Your task to perform on an android device: install app "Indeed Job Search" Image 0: 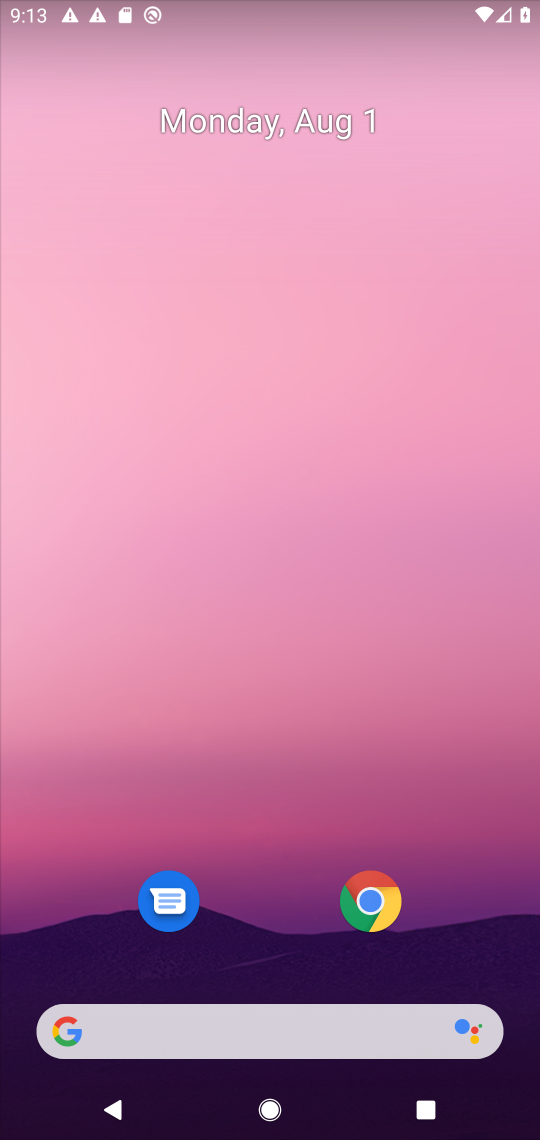
Step 0: drag from (258, 929) to (338, 3)
Your task to perform on an android device: install app "Indeed Job Search" Image 1: 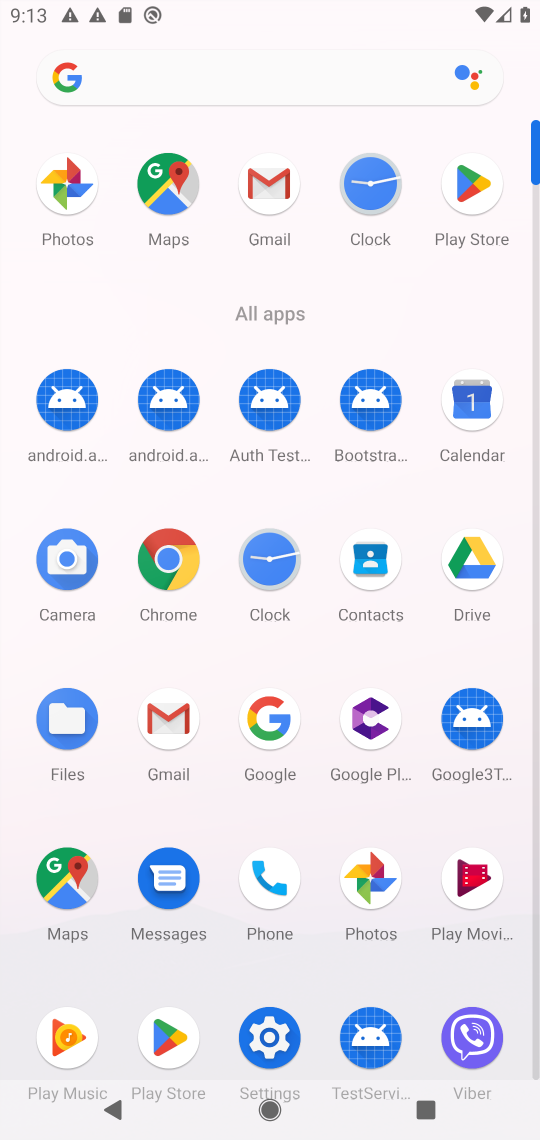
Step 1: click (467, 173)
Your task to perform on an android device: install app "Indeed Job Search" Image 2: 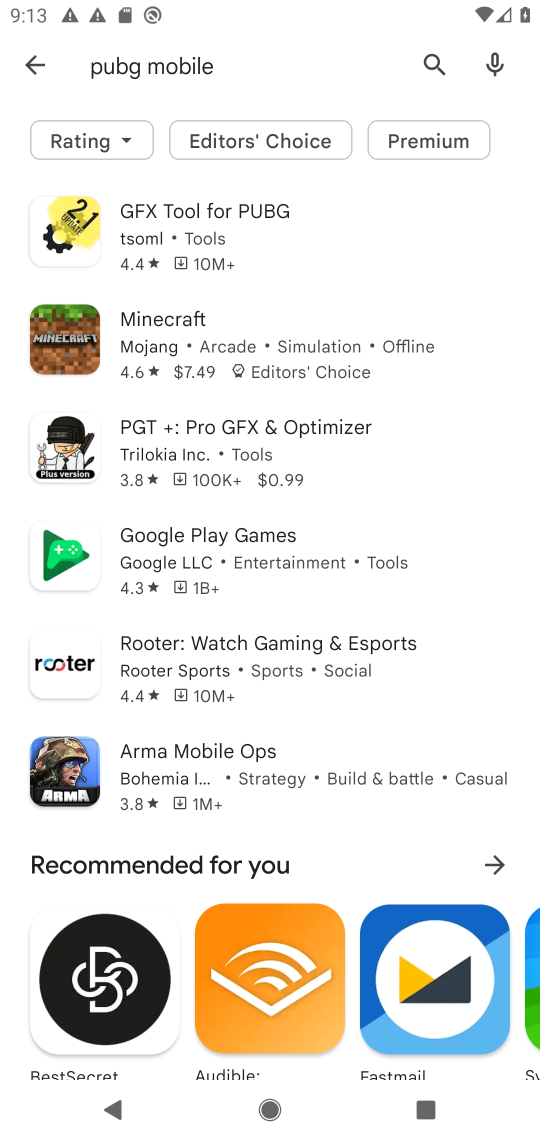
Step 2: click (433, 54)
Your task to perform on an android device: install app "Indeed Job Search" Image 3: 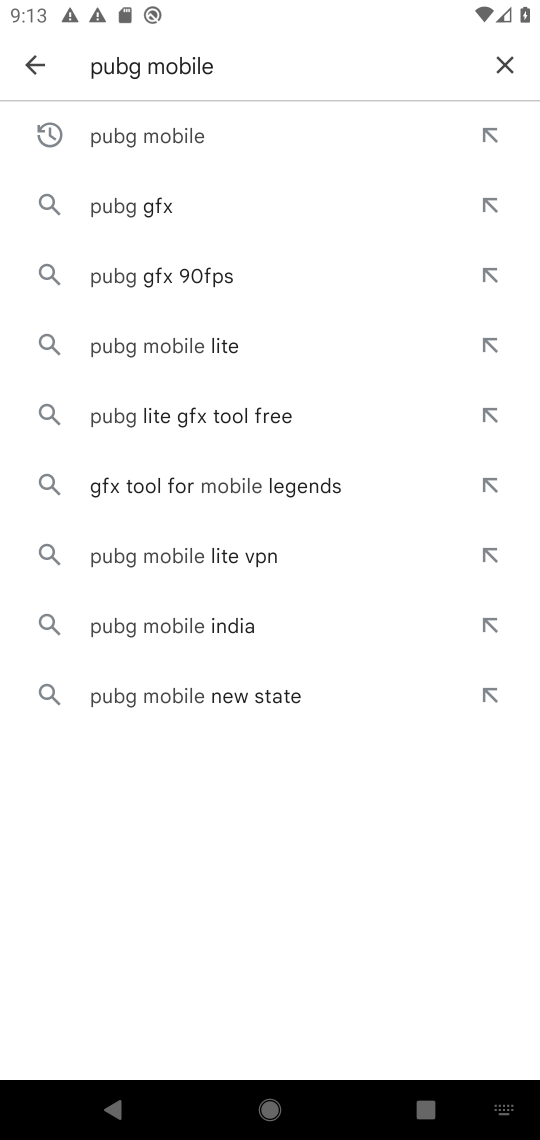
Step 3: click (500, 58)
Your task to perform on an android device: install app "Indeed Job Search" Image 4: 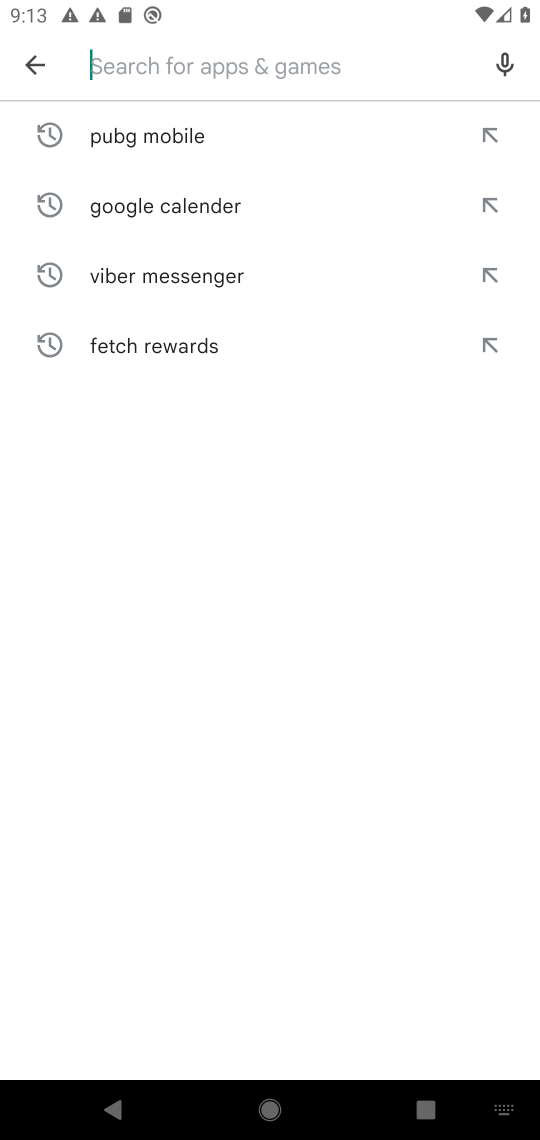
Step 4: type "indeed job search"
Your task to perform on an android device: install app "Indeed Job Search" Image 5: 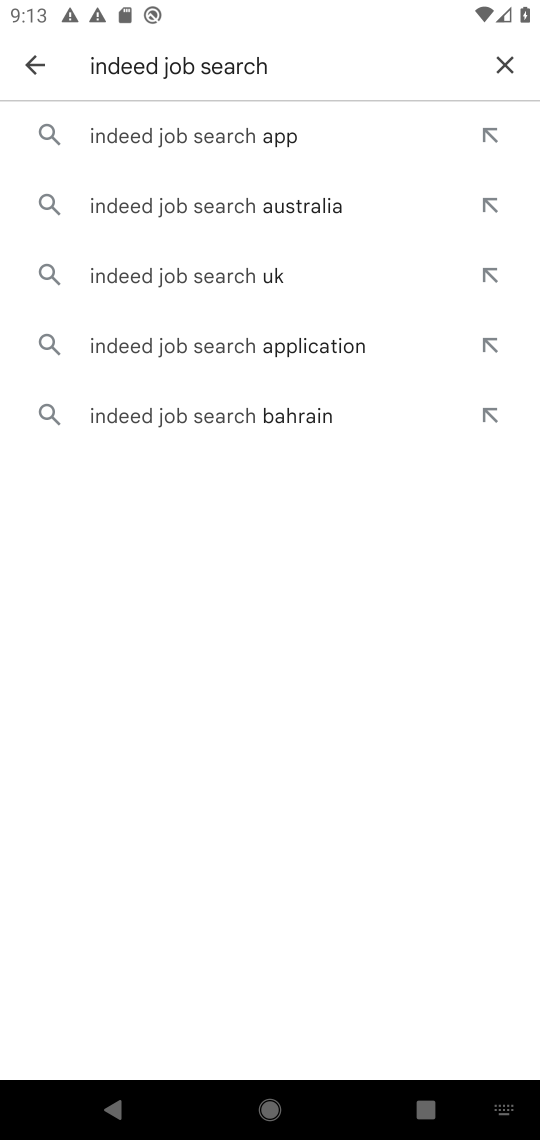
Step 5: click (174, 133)
Your task to perform on an android device: install app "Indeed Job Search" Image 6: 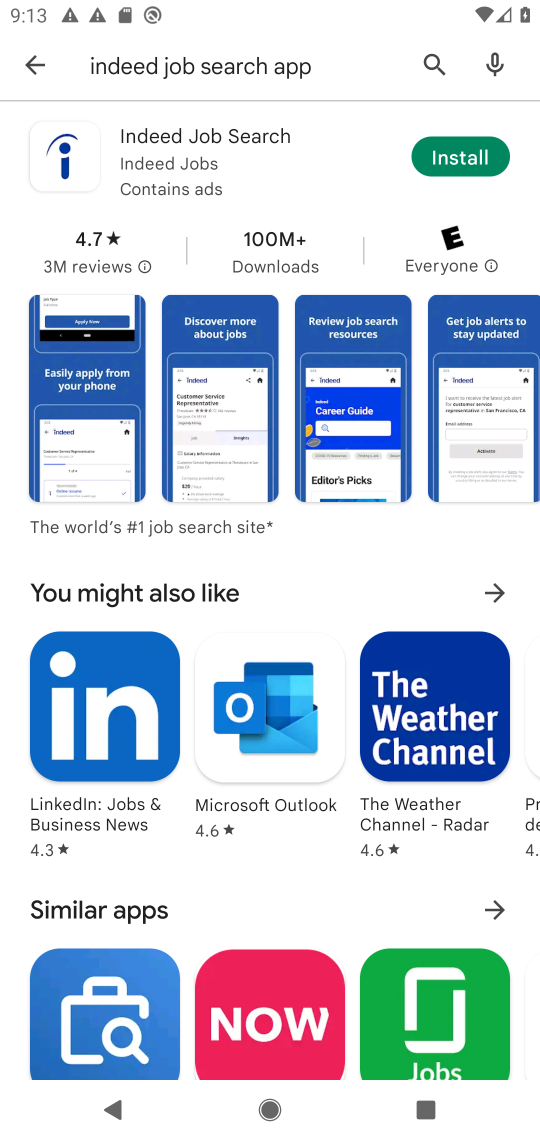
Step 6: click (174, 133)
Your task to perform on an android device: install app "Indeed Job Search" Image 7: 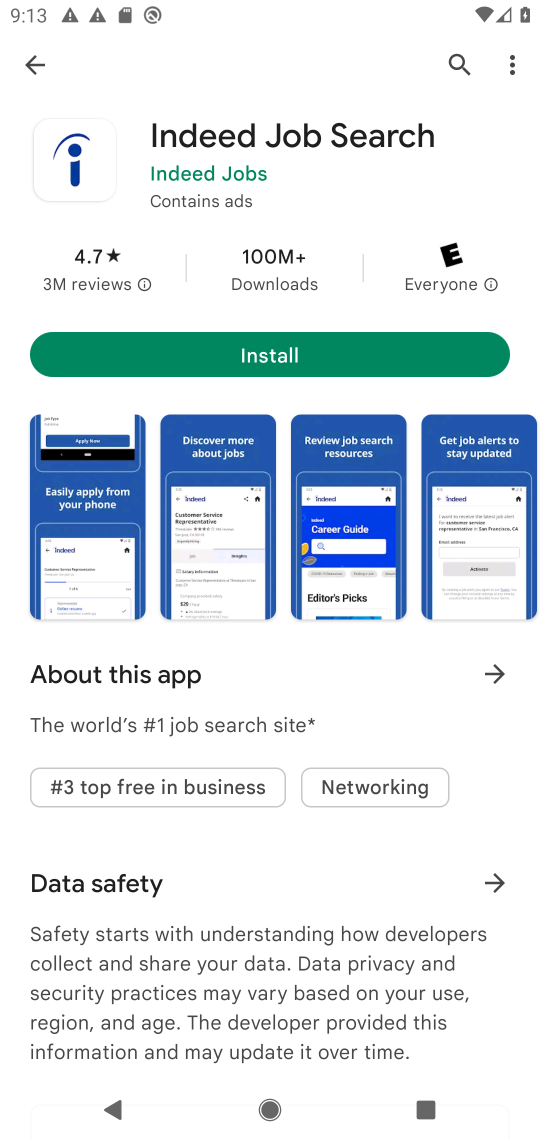
Step 7: click (225, 348)
Your task to perform on an android device: install app "Indeed Job Search" Image 8: 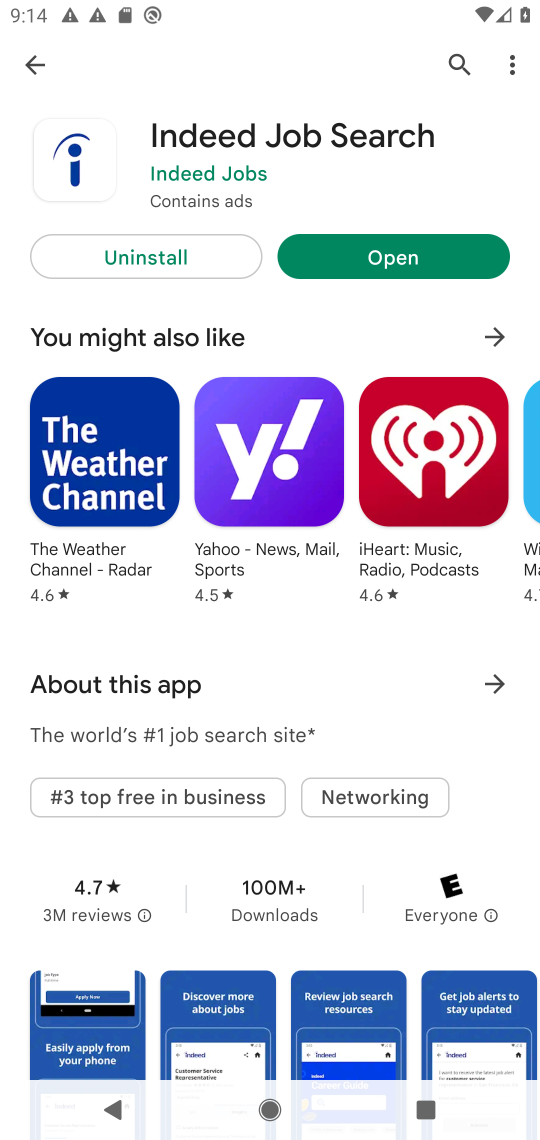
Step 8: task complete